Your task to perform on an android device: Add razer naga to the cart on ebay, then select checkout. Image 0: 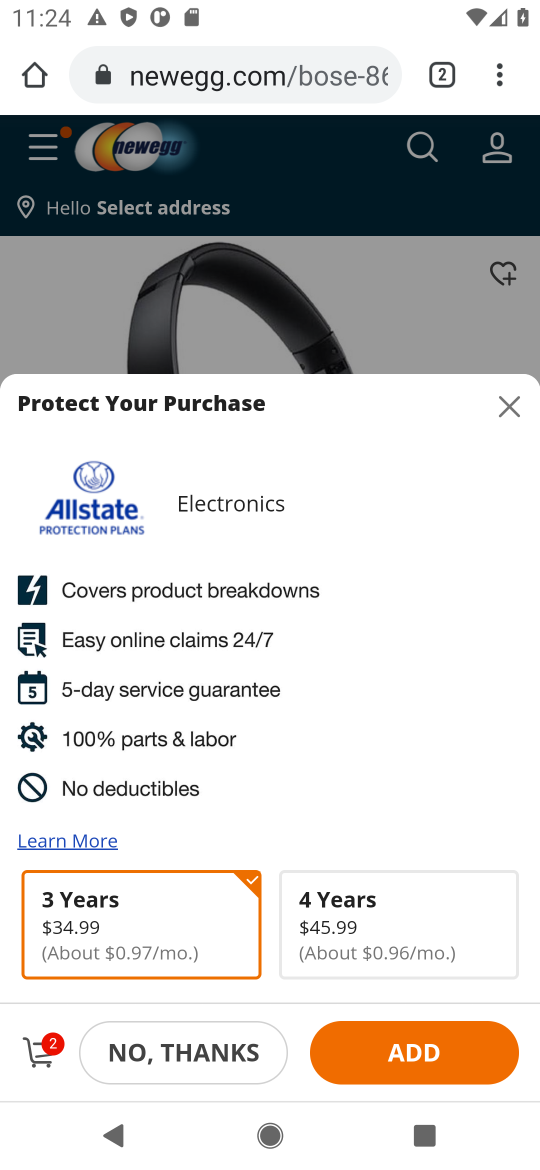
Step 0: click (492, 394)
Your task to perform on an android device: Add razer naga to the cart on ebay, then select checkout. Image 1: 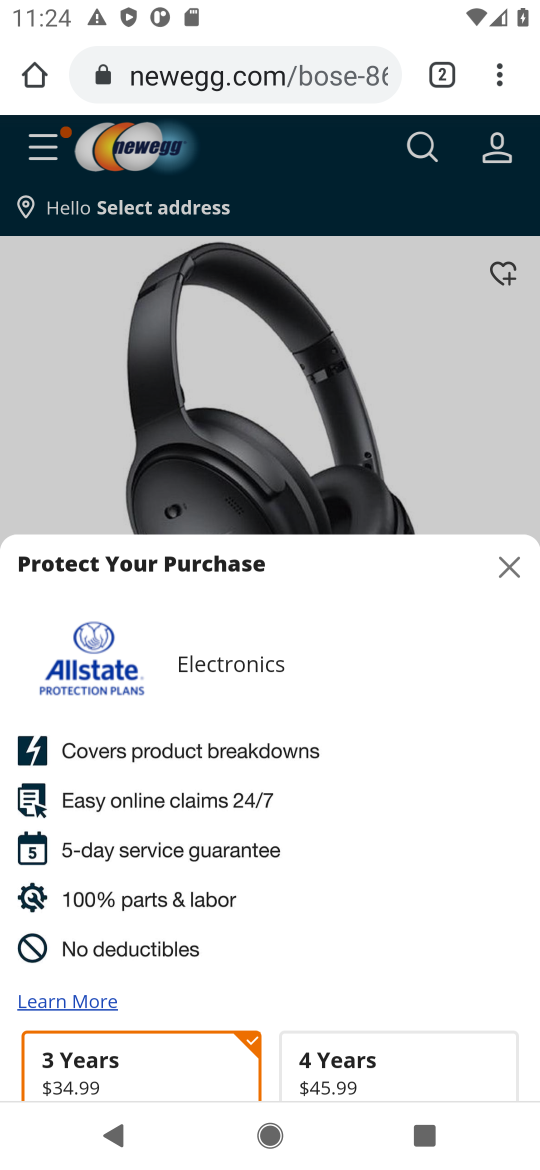
Step 1: task complete